Your task to perform on an android device: Open Chrome and go to settings Image 0: 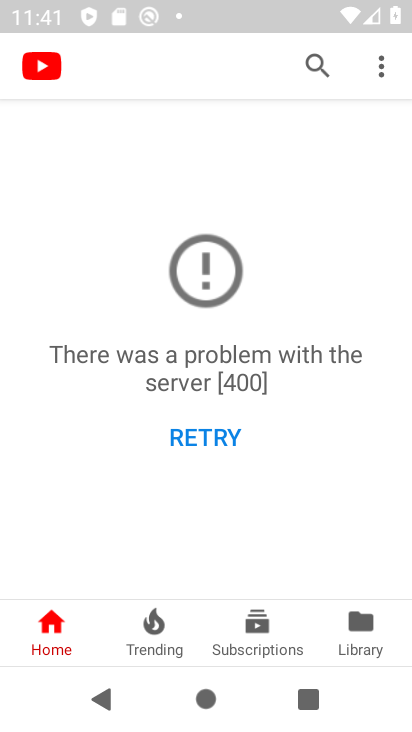
Step 0: press home button
Your task to perform on an android device: Open Chrome and go to settings Image 1: 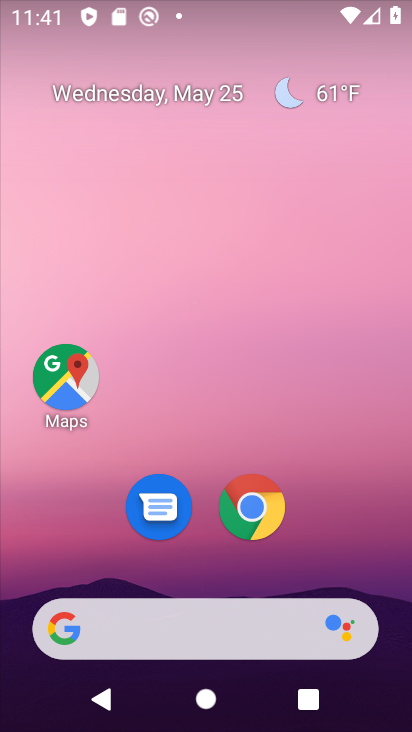
Step 1: click (272, 493)
Your task to perform on an android device: Open Chrome and go to settings Image 2: 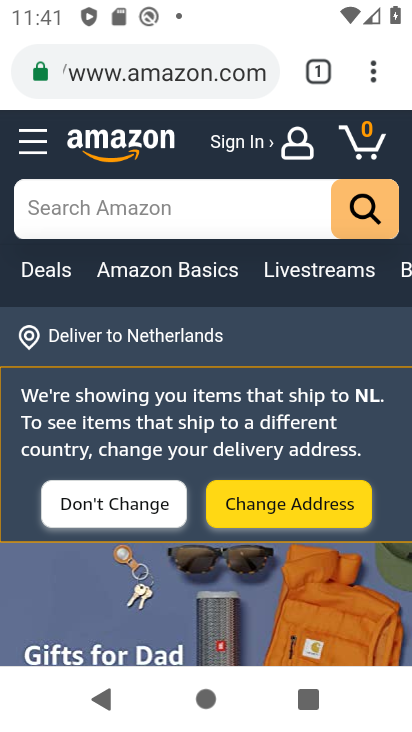
Step 2: click (388, 77)
Your task to perform on an android device: Open Chrome and go to settings Image 3: 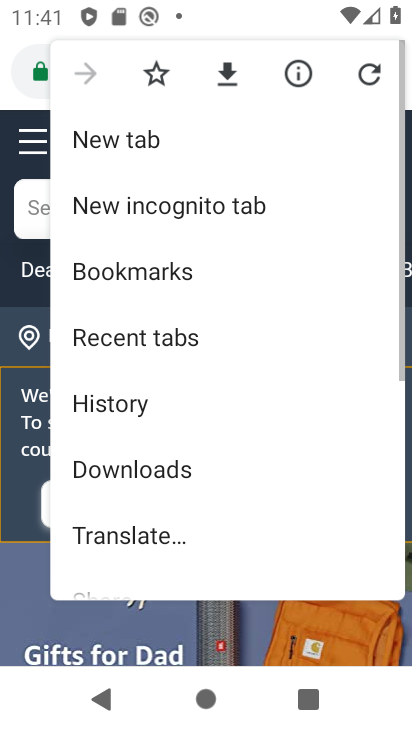
Step 3: drag from (156, 507) to (203, 298)
Your task to perform on an android device: Open Chrome and go to settings Image 4: 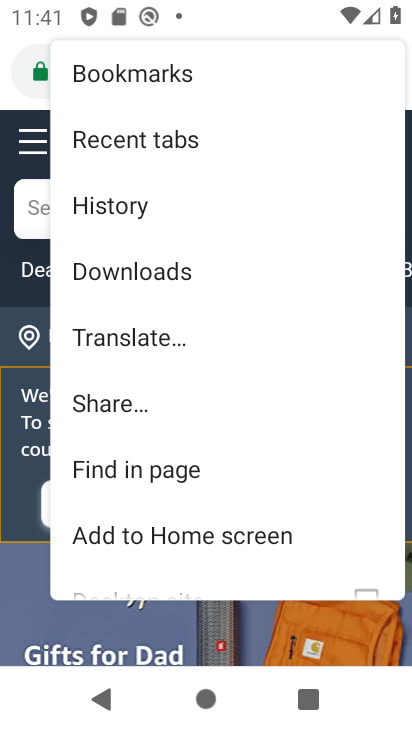
Step 4: drag from (136, 548) to (179, 290)
Your task to perform on an android device: Open Chrome and go to settings Image 5: 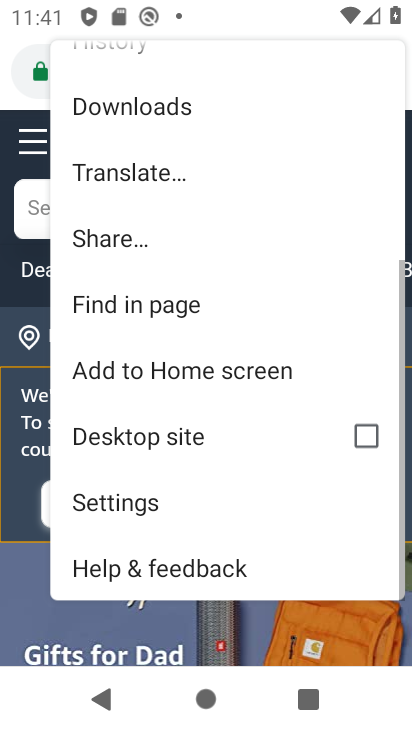
Step 5: click (140, 491)
Your task to perform on an android device: Open Chrome and go to settings Image 6: 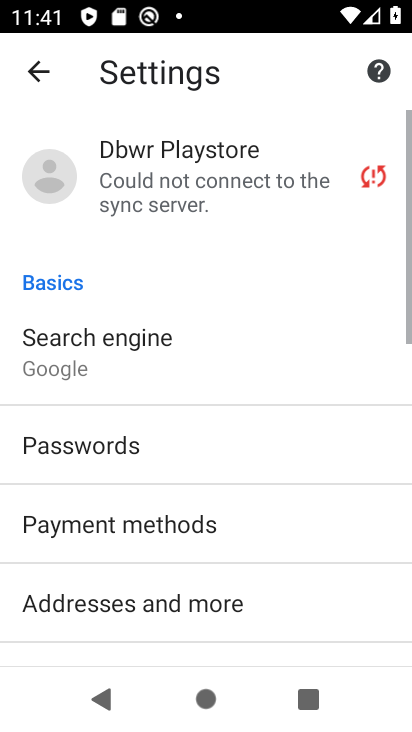
Step 6: task complete